Your task to perform on an android device: What's on my calendar today? Image 0: 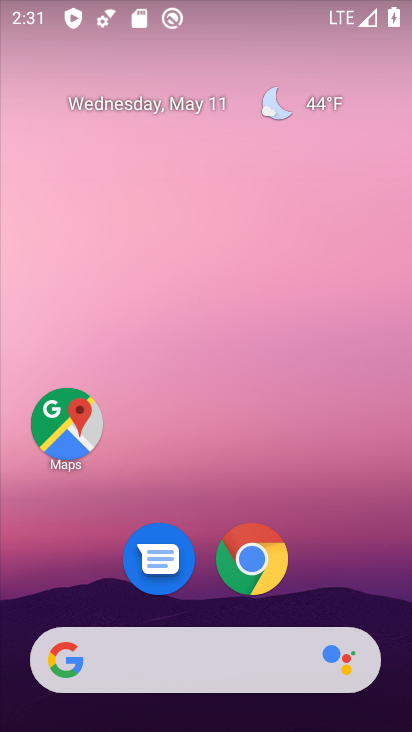
Step 0: drag from (345, 563) to (263, 48)
Your task to perform on an android device: What's on my calendar today? Image 1: 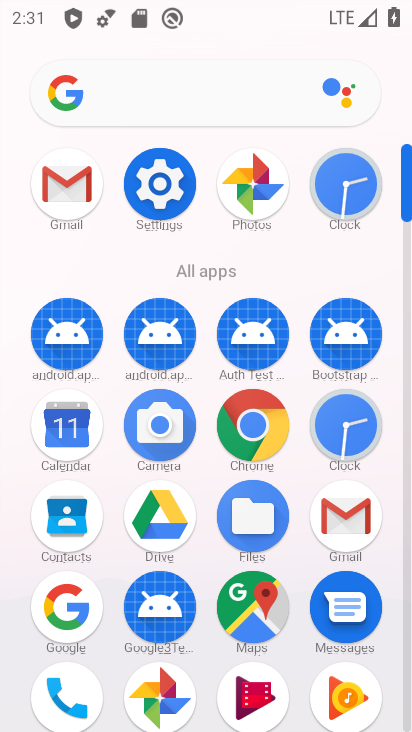
Step 1: click (51, 419)
Your task to perform on an android device: What's on my calendar today? Image 2: 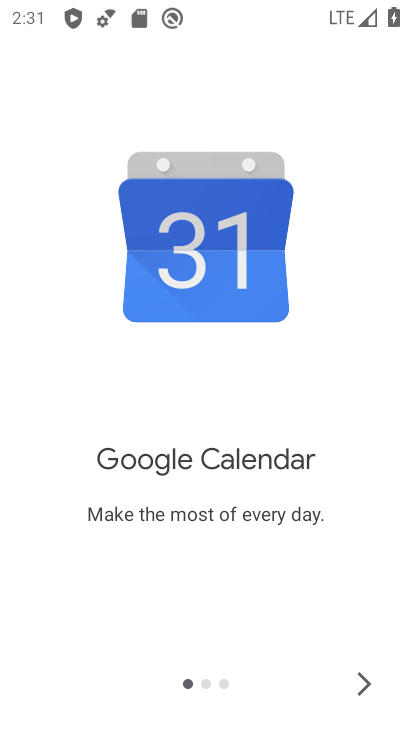
Step 2: click (354, 685)
Your task to perform on an android device: What's on my calendar today? Image 3: 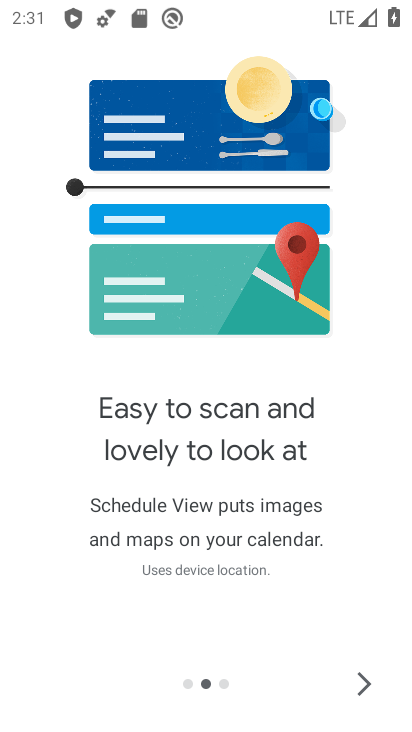
Step 3: click (354, 685)
Your task to perform on an android device: What's on my calendar today? Image 4: 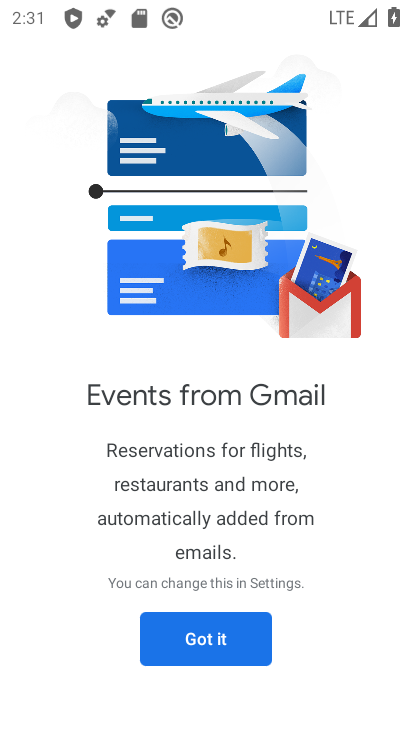
Step 4: click (229, 644)
Your task to perform on an android device: What's on my calendar today? Image 5: 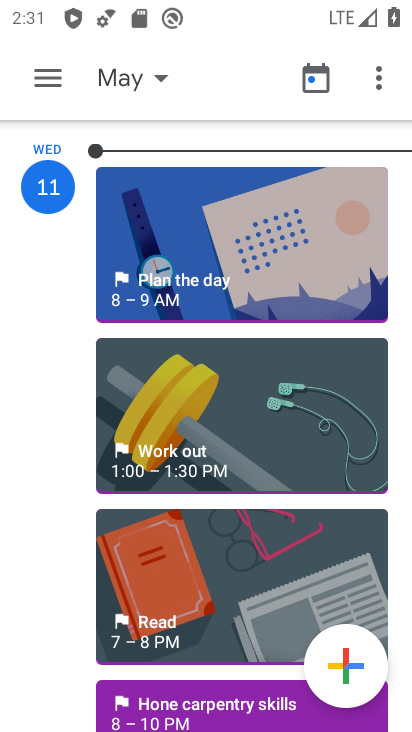
Step 5: task complete